Your task to perform on an android device: Search for vegetarian restaurants on Maps Image 0: 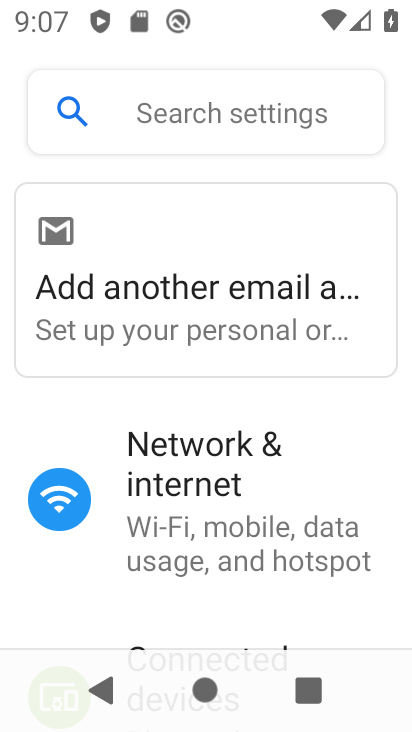
Step 0: press home button
Your task to perform on an android device: Search for vegetarian restaurants on Maps Image 1: 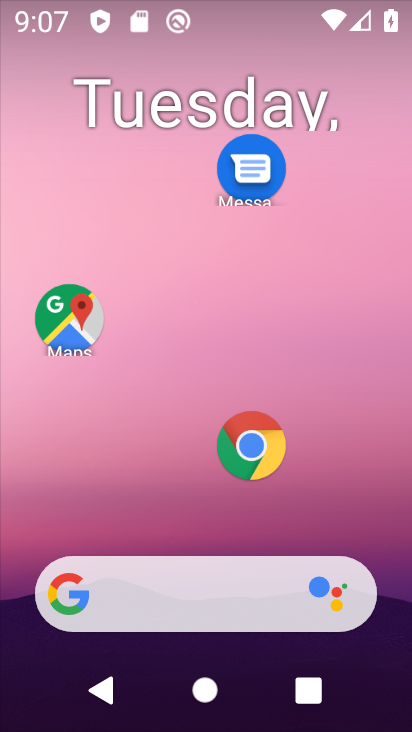
Step 1: click (80, 321)
Your task to perform on an android device: Search for vegetarian restaurants on Maps Image 2: 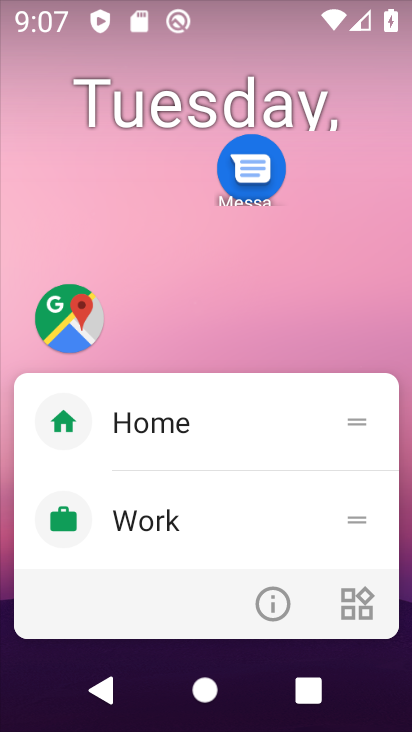
Step 2: click (78, 318)
Your task to perform on an android device: Search for vegetarian restaurants on Maps Image 3: 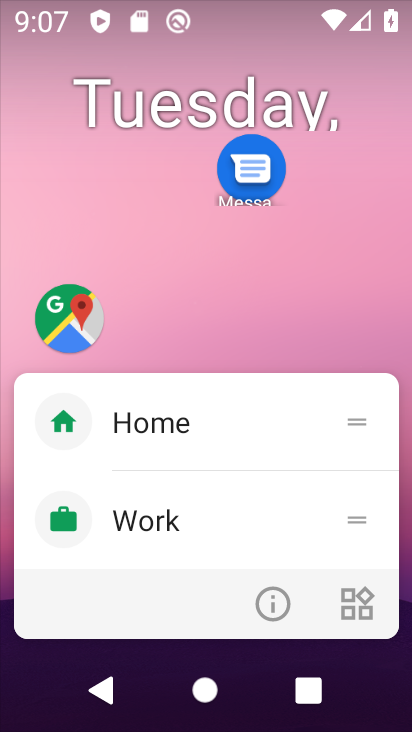
Step 3: click (79, 314)
Your task to perform on an android device: Search for vegetarian restaurants on Maps Image 4: 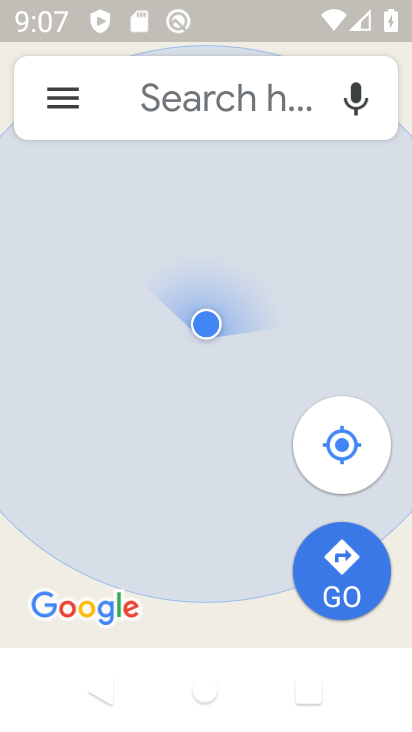
Step 4: click (188, 109)
Your task to perform on an android device: Search for vegetarian restaurants on Maps Image 5: 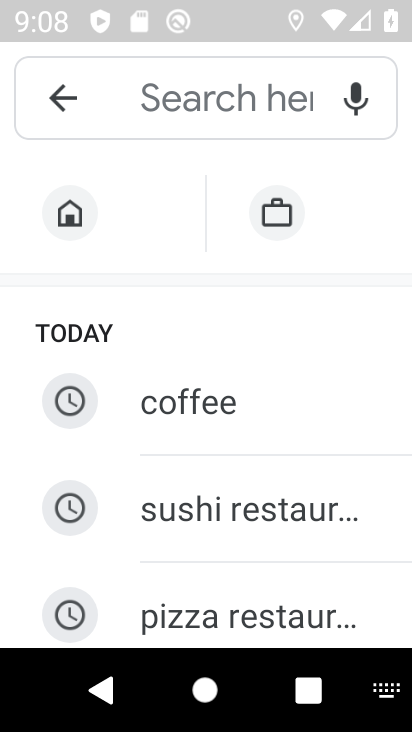
Step 5: drag from (238, 501) to (261, 129)
Your task to perform on an android device: Search for vegetarian restaurants on Maps Image 6: 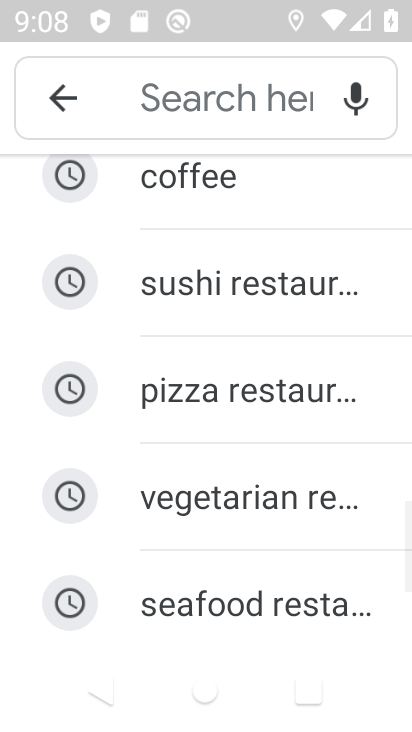
Step 6: click (247, 493)
Your task to perform on an android device: Search for vegetarian restaurants on Maps Image 7: 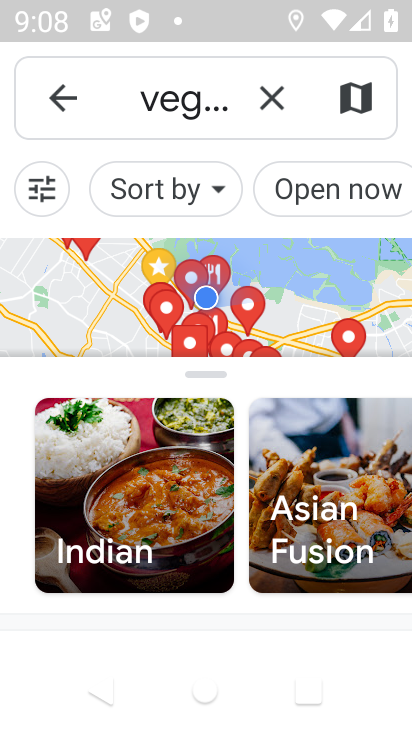
Step 7: task complete